Your task to perform on an android device: toggle airplane mode Image 0: 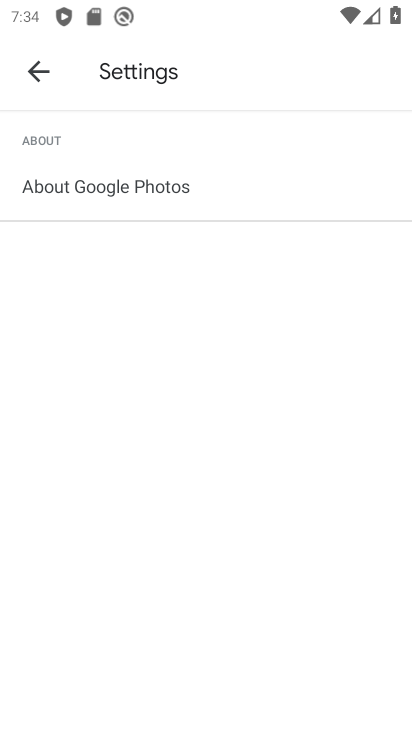
Step 0: press home button
Your task to perform on an android device: toggle airplane mode Image 1: 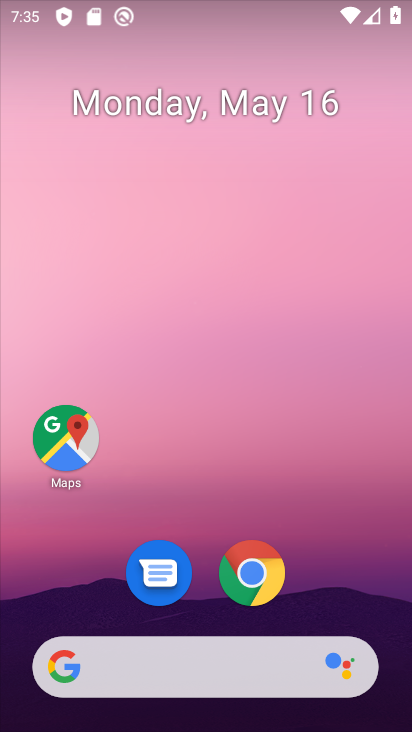
Step 1: drag from (382, 589) to (63, 4)
Your task to perform on an android device: toggle airplane mode Image 2: 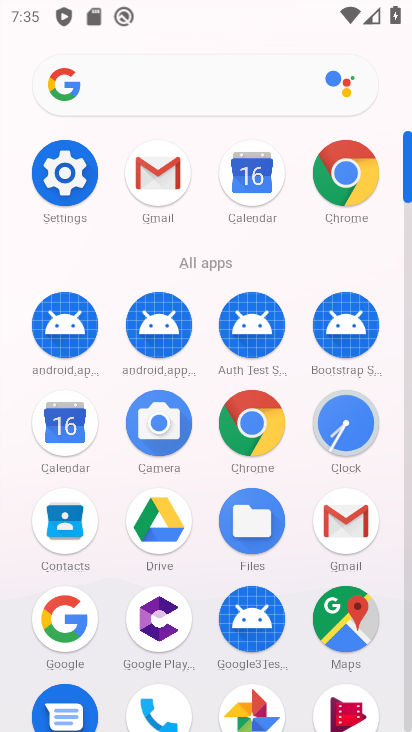
Step 2: click (66, 184)
Your task to perform on an android device: toggle airplane mode Image 3: 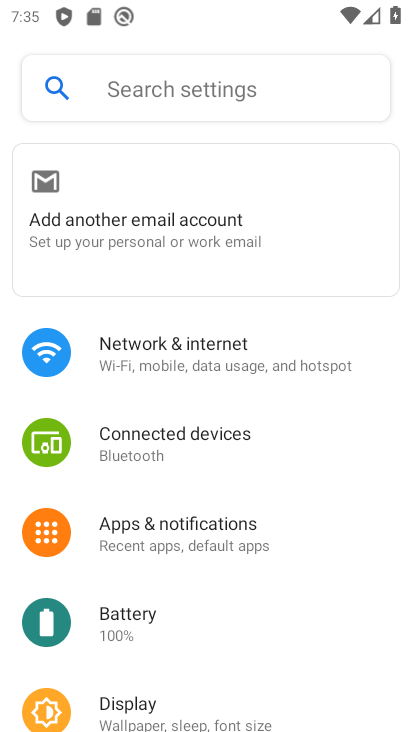
Step 3: click (102, 351)
Your task to perform on an android device: toggle airplane mode Image 4: 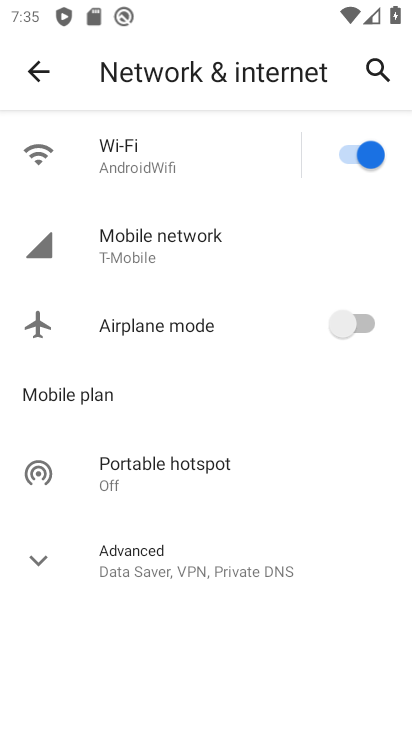
Step 4: click (320, 319)
Your task to perform on an android device: toggle airplane mode Image 5: 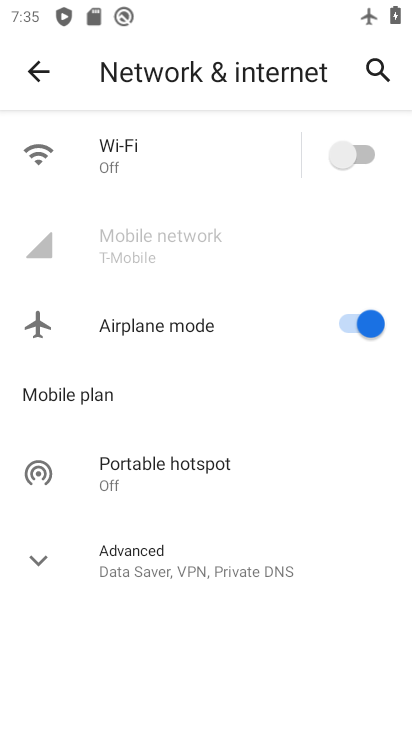
Step 5: task complete